Your task to perform on an android device: open app "ColorNote Notepad Notes" (install if not already installed) and go to login screen Image 0: 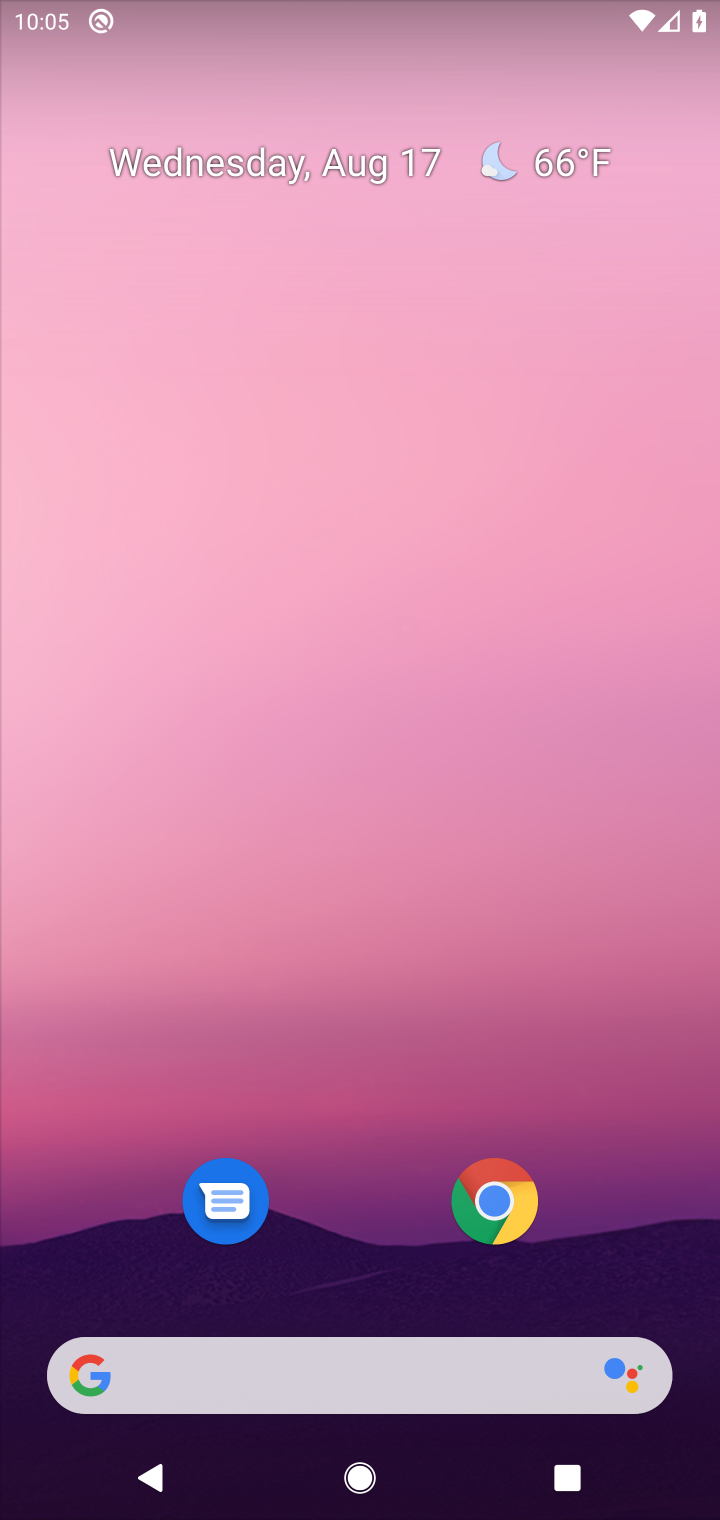
Step 0: press home button
Your task to perform on an android device: open app "ColorNote Notepad Notes" (install if not already installed) and go to login screen Image 1: 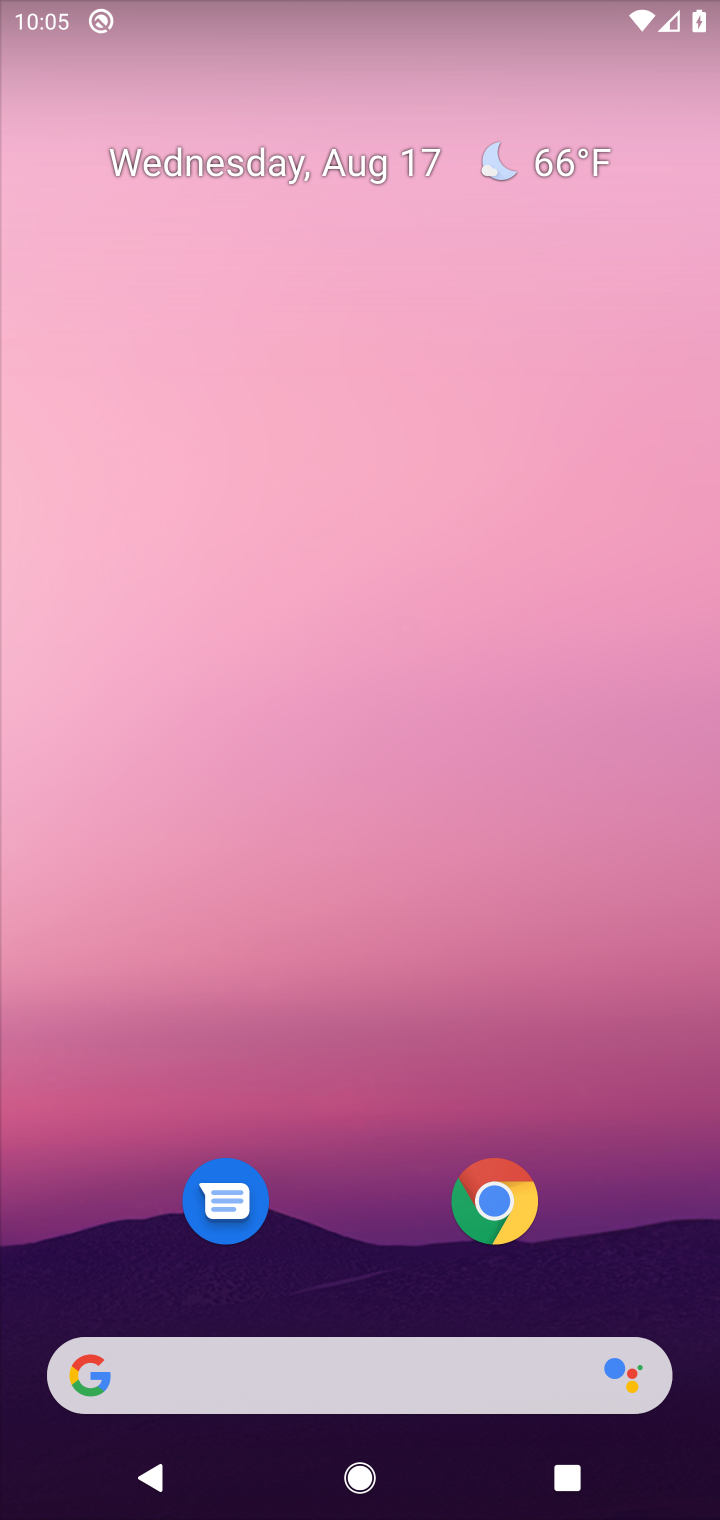
Step 1: drag from (345, 1287) to (456, 68)
Your task to perform on an android device: open app "ColorNote Notepad Notes" (install if not already installed) and go to login screen Image 2: 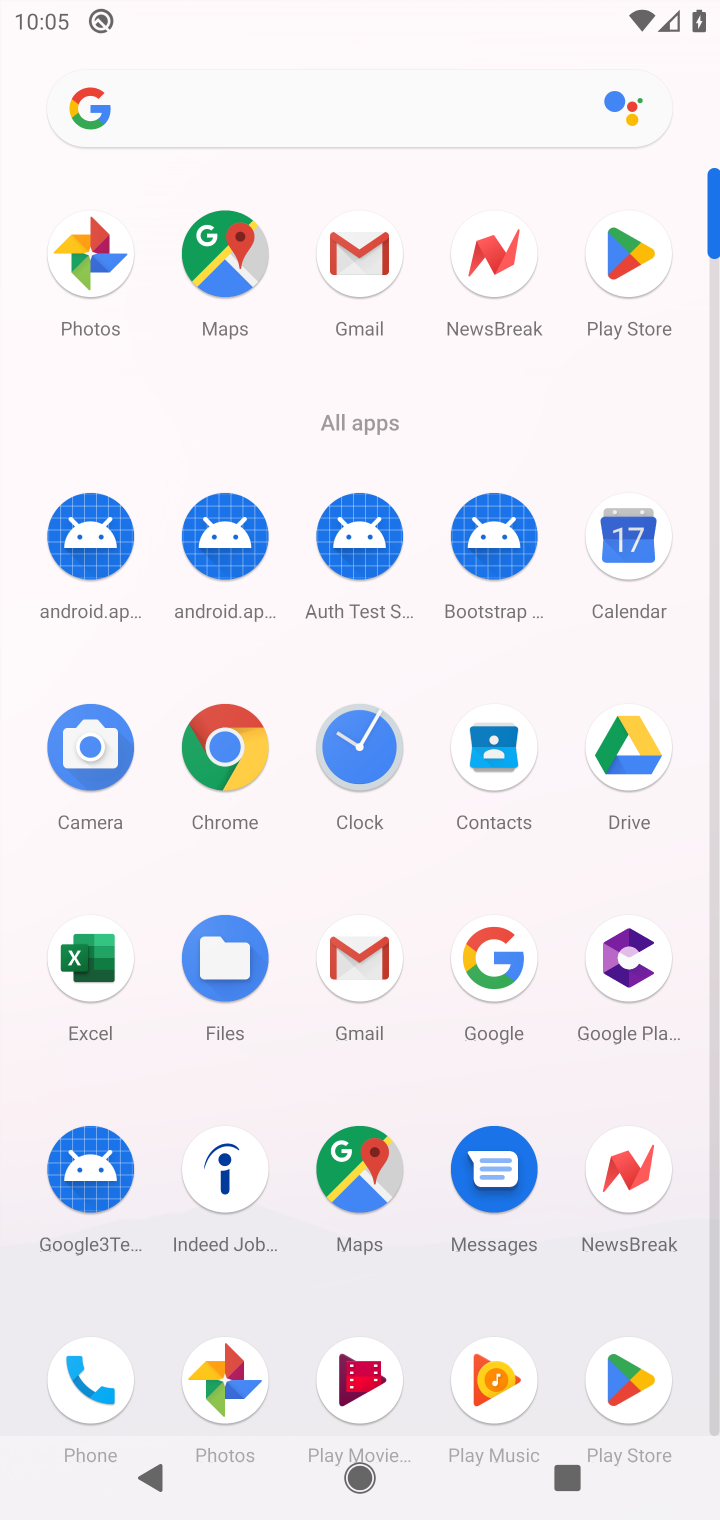
Step 2: click (625, 249)
Your task to perform on an android device: open app "ColorNote Notepad Notes" (install if not already installed) and go to login screen Image 3: 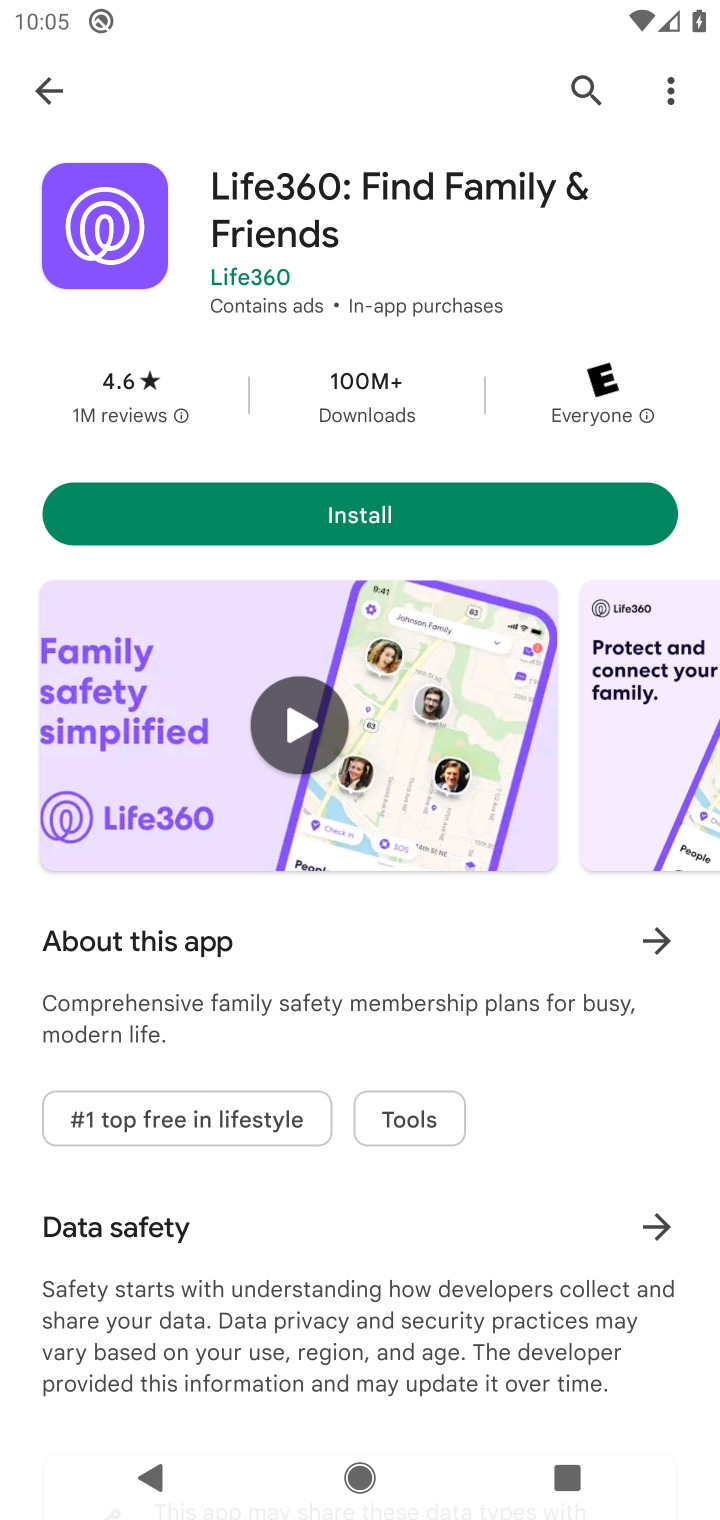
Step 3: click (585, 84)
Your task to perform on an android device: open app "ColorNote Notepad Notes" (install if not already installed) and go to login screen Image 4: 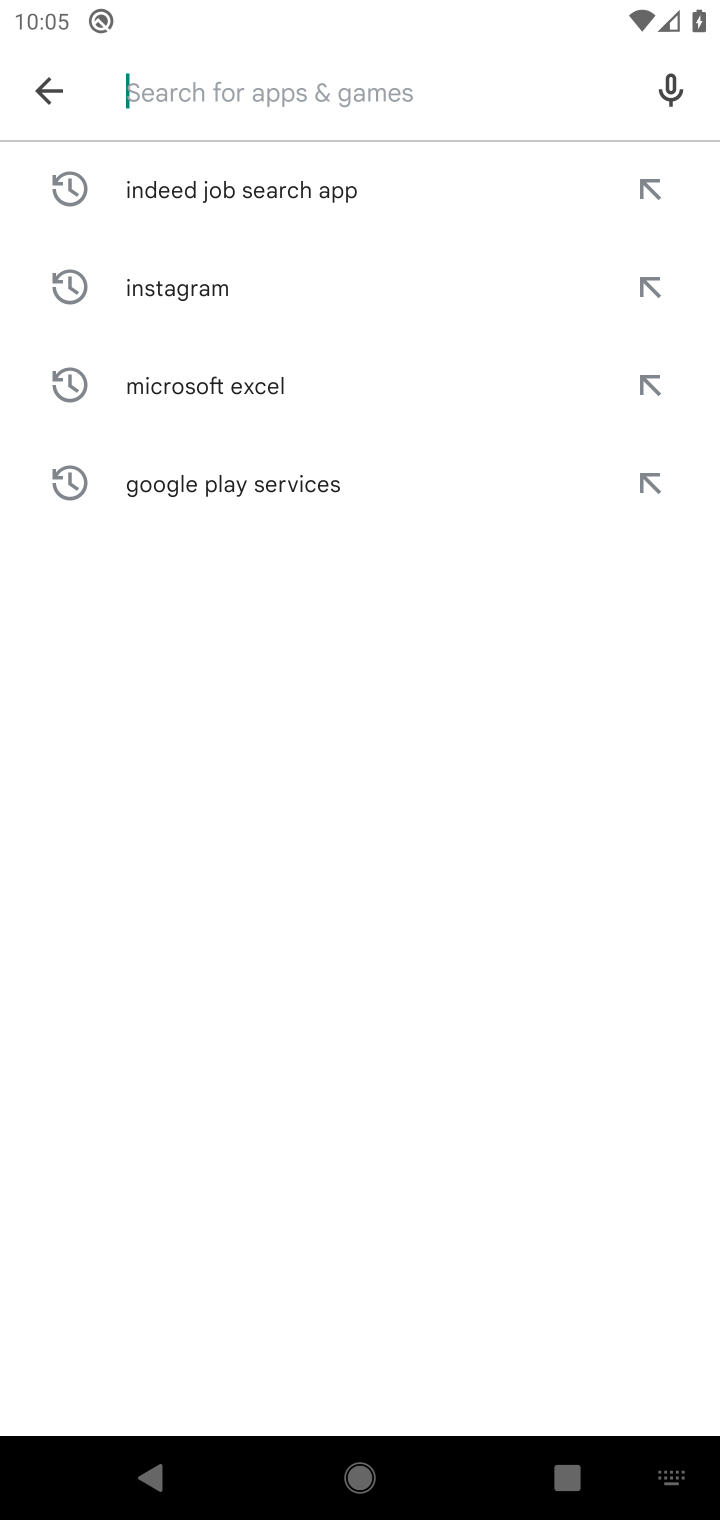
Step 4: type "ColorNote Notepad Notes"
Your task to perform on an android device: open app "ColorNote Notepad Notes" (install if not already installed) and go to login screen Image 5: 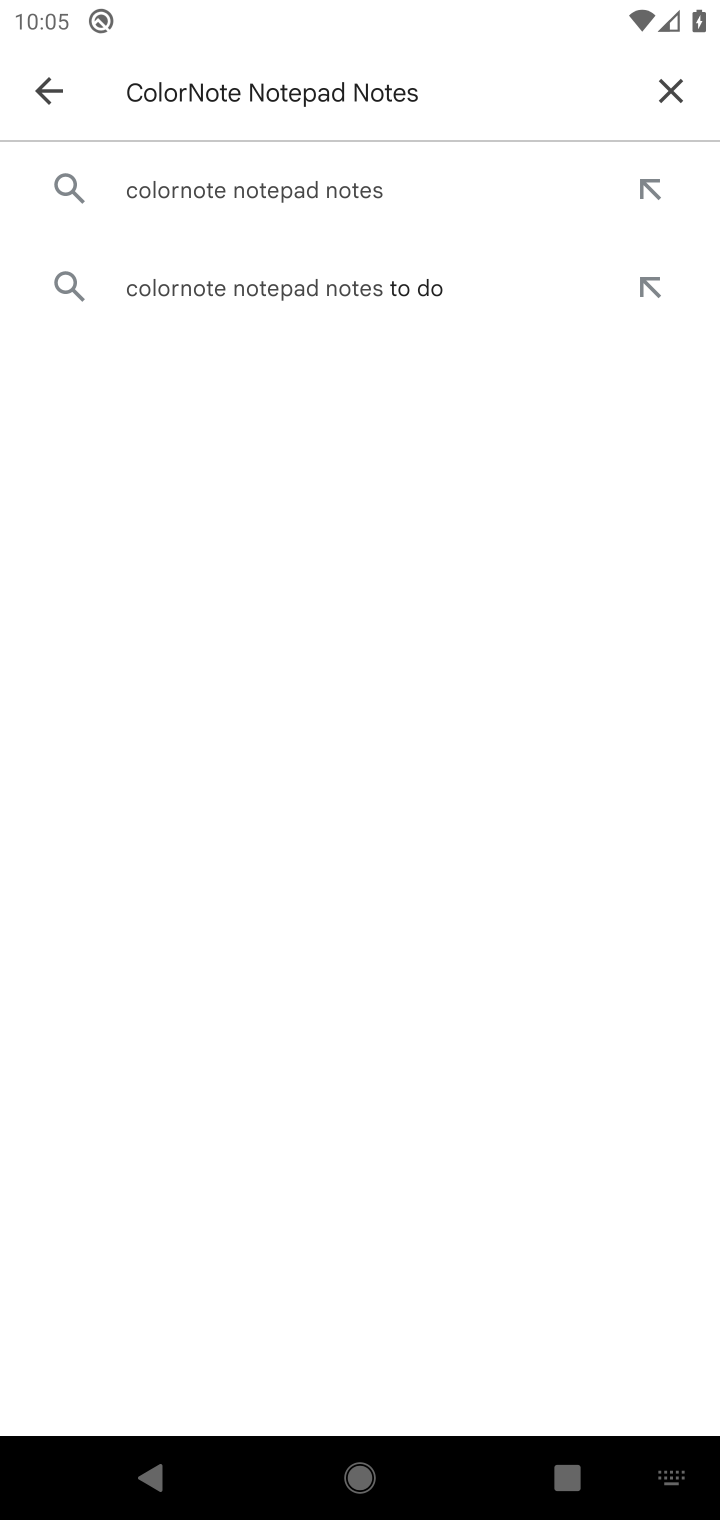
Step 5: click (311, 199)
Your task to perform on an android device: open app "ColorNote Notepad Notes" (install if not already installed) and go to login screen Image 6: 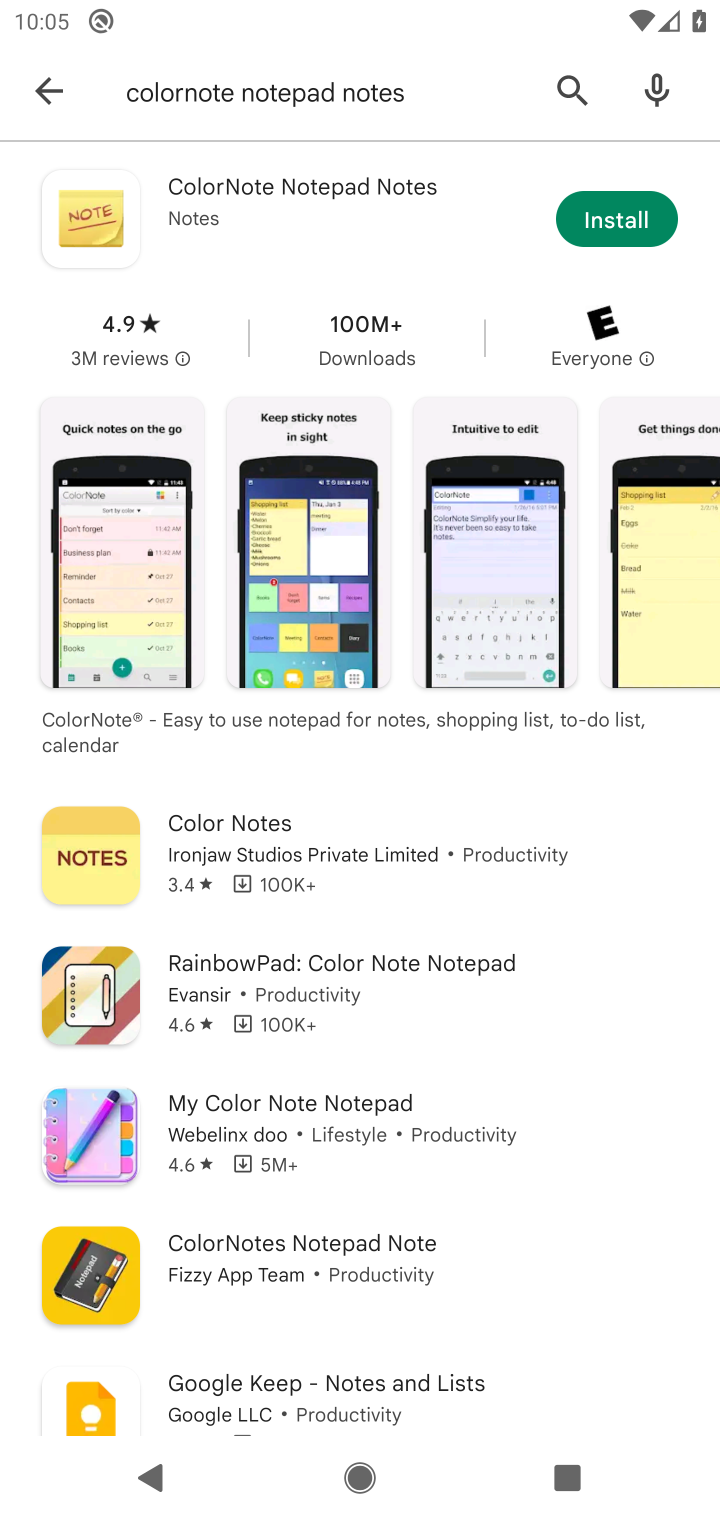
Step 6: click (612, 220)
Your task to perform on an android device: open app "ColorNote Notepad Notes" (install if not already installed) and go to login screen Image 7: 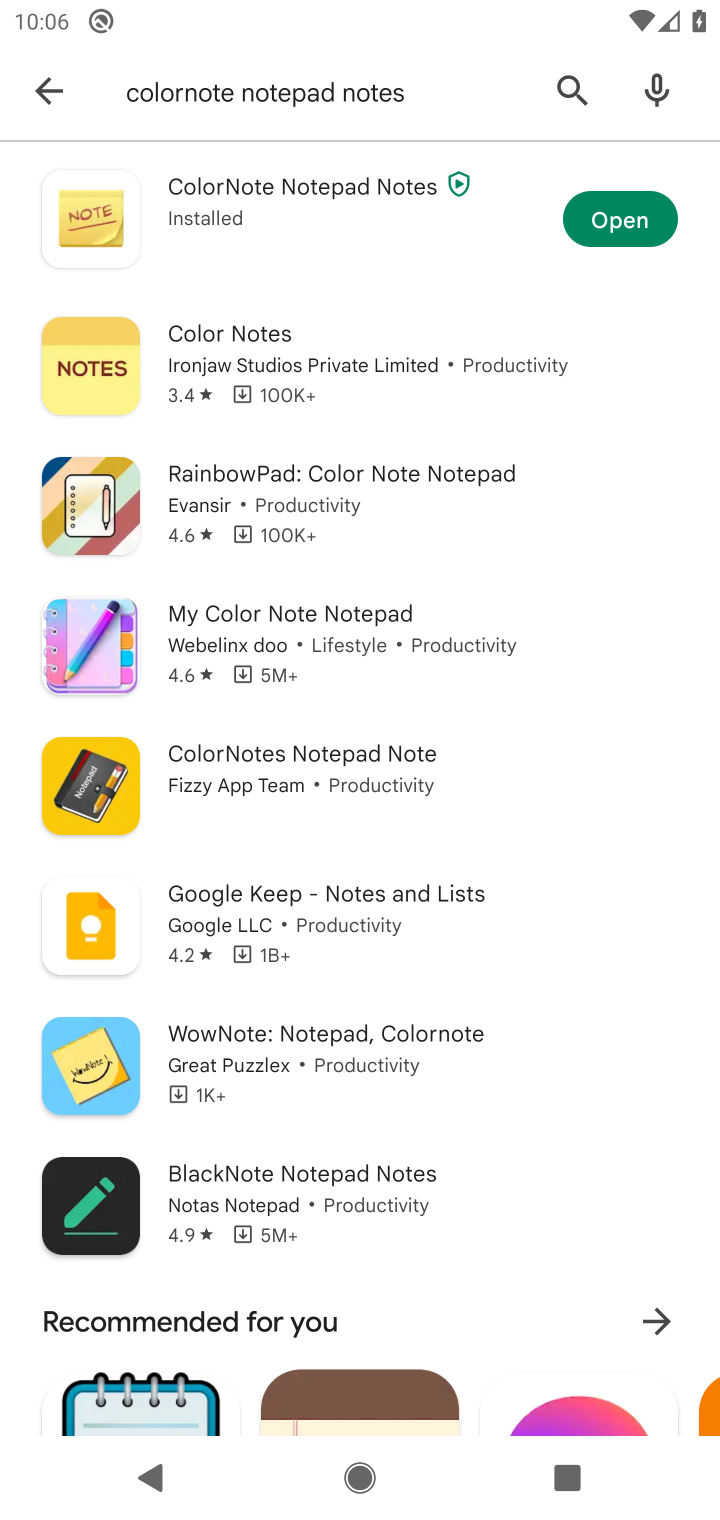
Step 7: click (612, 219)
Your task to perform on an android device: open app "ColorNote Notepad Notes" (install if not already installed) and go to login screen Image 8: 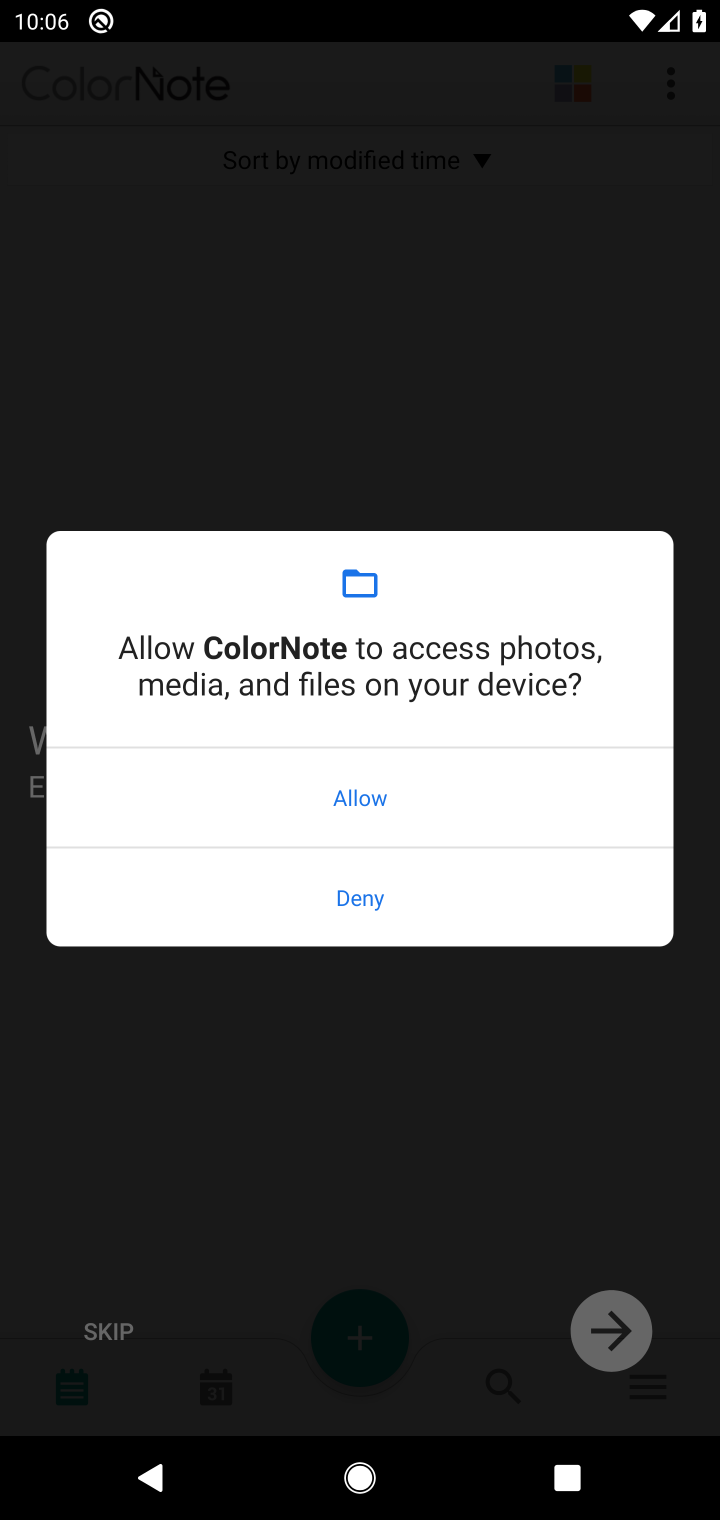
Step 8: click (354, 787)
Your task to perform on an android device: open app "ColorNote Notepad Notes" (install if not already installed) and go to login screen Image 9: 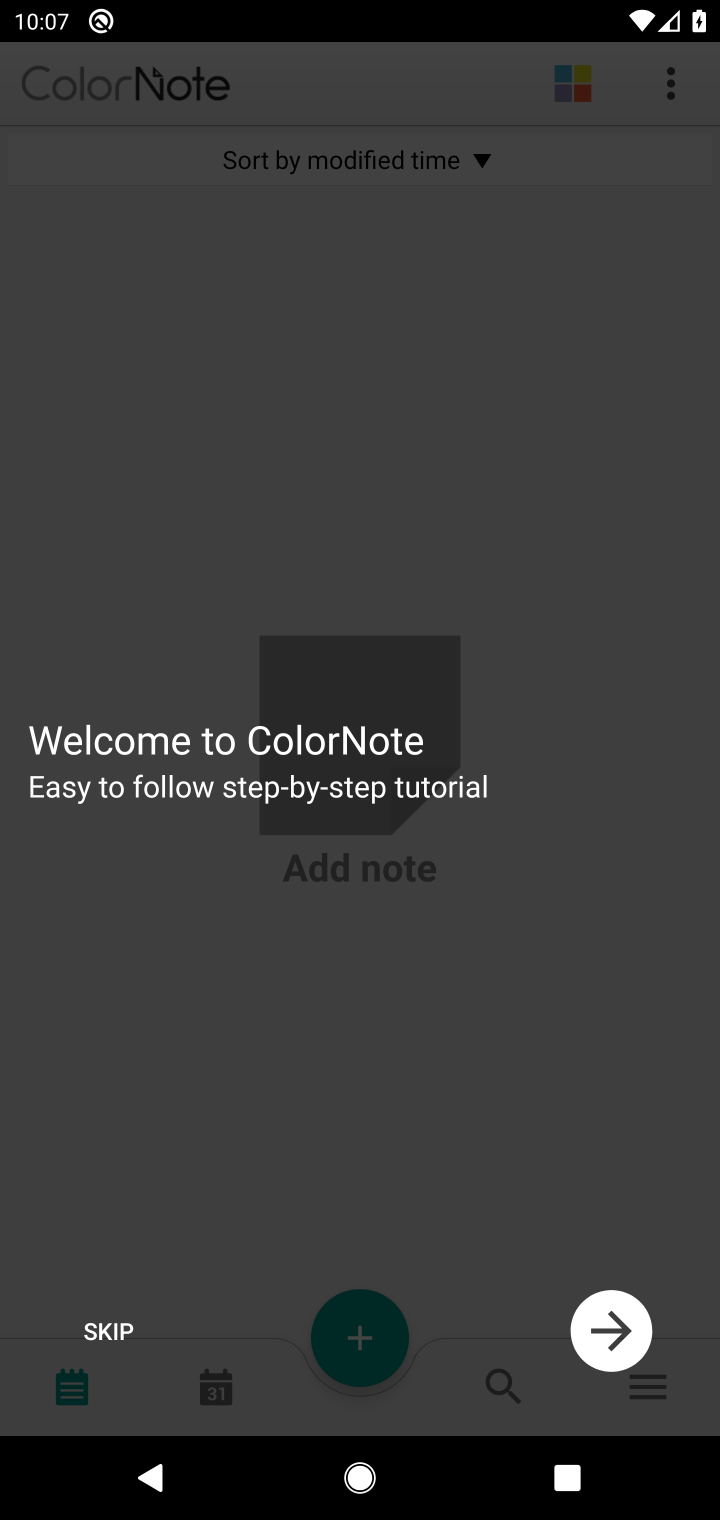
Step 9: click (598, 1329)
Your task to perform on an android device: open app "ColorNote Notepad Notes" (install if not already installed) and go to login screen Image 10: 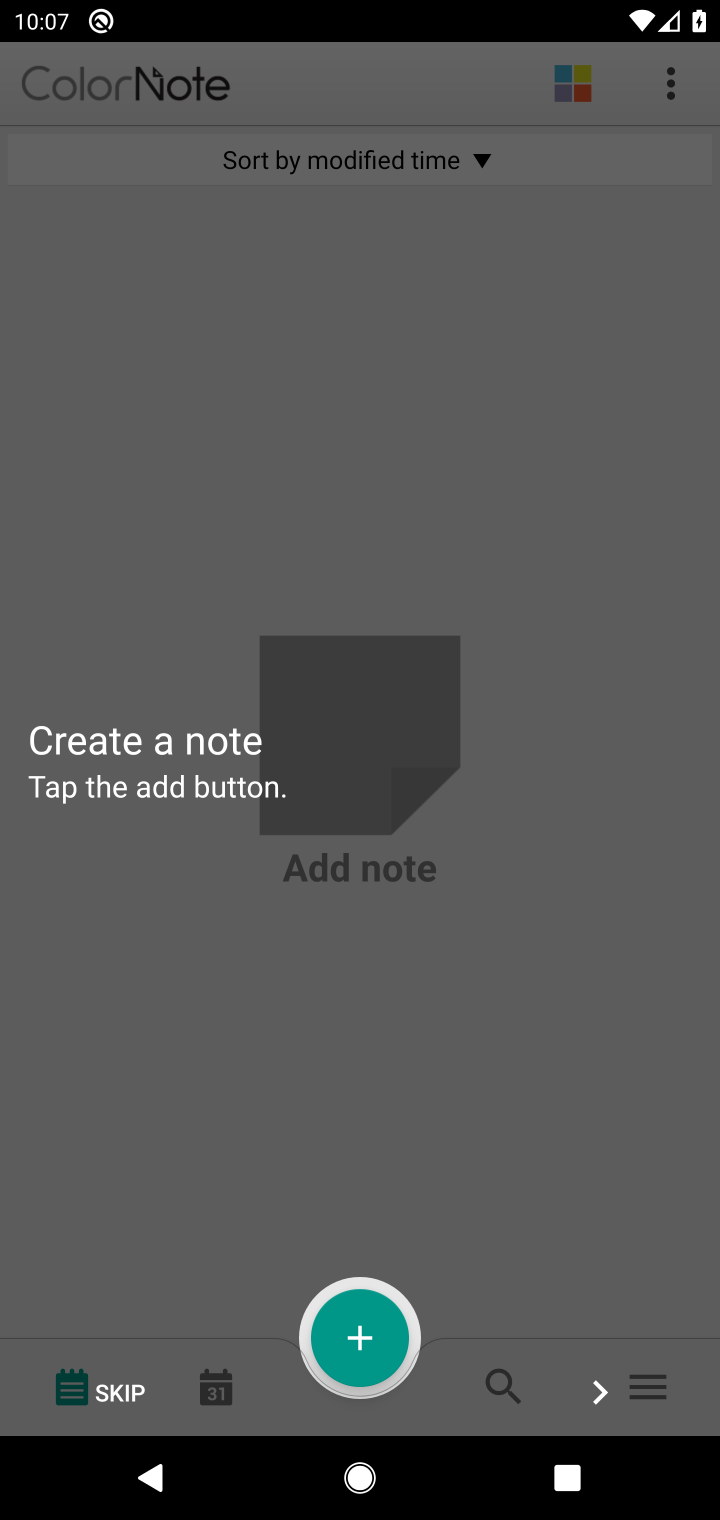
Step 10: task complete